Your task to perform on an android device: toggle show notifications on the lock screen Image 0: 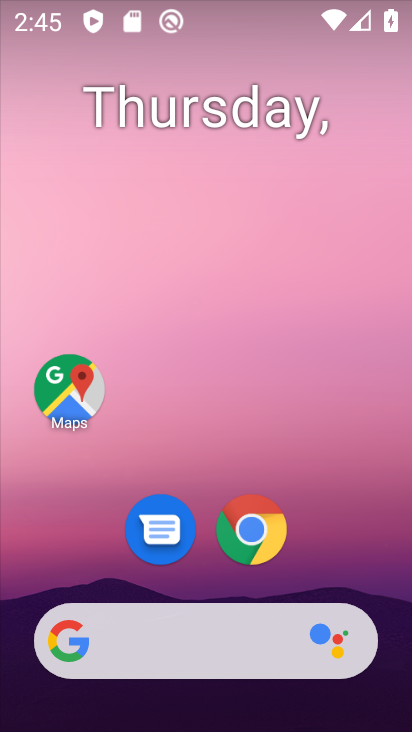
Step 0: drag from (217, 569) to (289, 210)
Your task to perform on an android device: toggle show notifications on the lock screen Image 1: 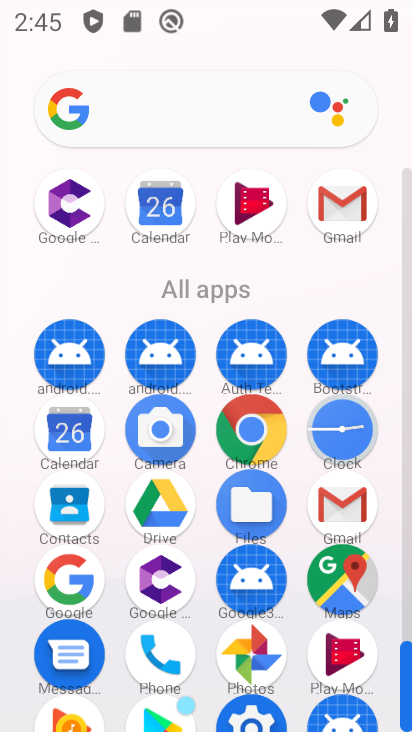
Step 1: click (253, 716)
Your task to perform on an android device: toggle show notifications on the lock screen Image 2: 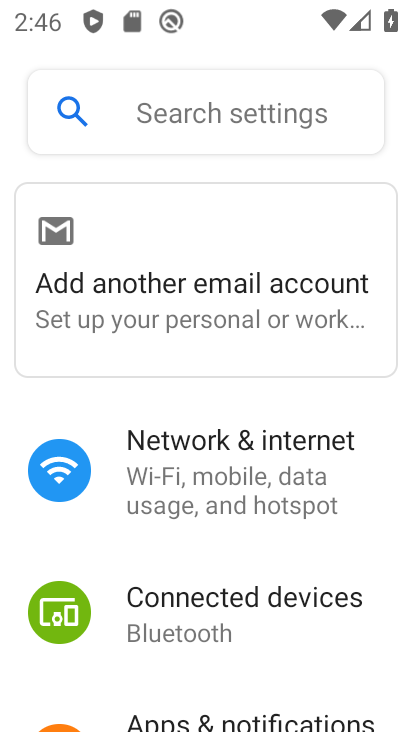
Step 2: drag from (237, 657) to (266, 374)
Your task to perform on an android device: toggle show notifications on the lock screen Image 3: 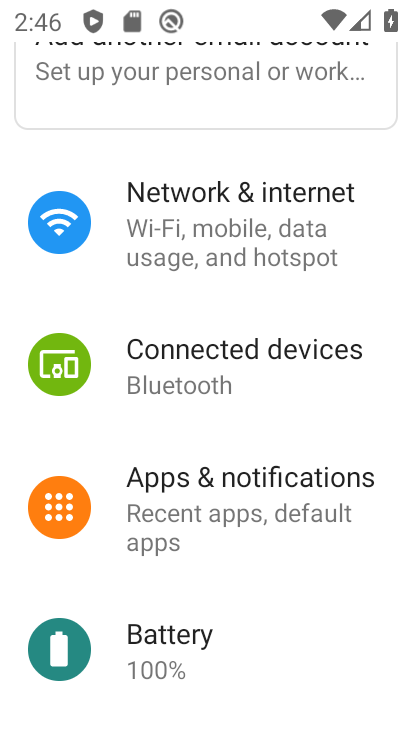
Step 3: click (242, 487)
Your task to perform on an android device: toggle show notifications on the lock screen Image 4: 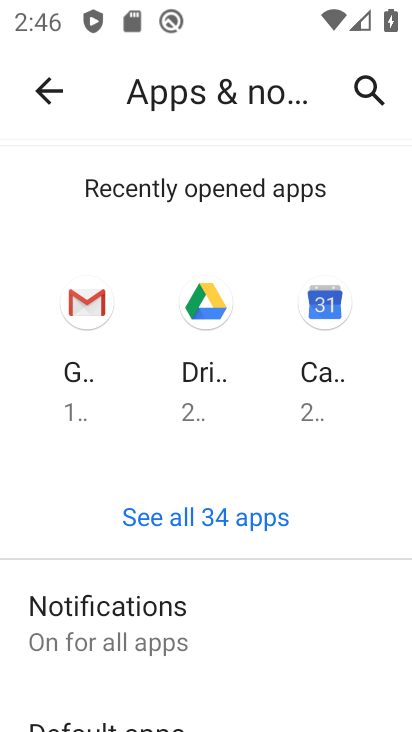
Step 4: drag from (208, 628) to (293, 351)
Your task to perform on an android device: toggle show notifications on the lock screen Image 5: 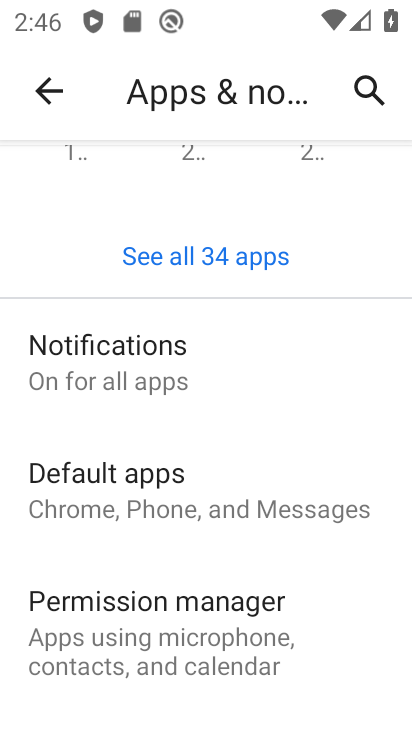
Step 5: click (127, 380)
Your task to perform on an android device: toggle show notifications on the lock screen Image 6: 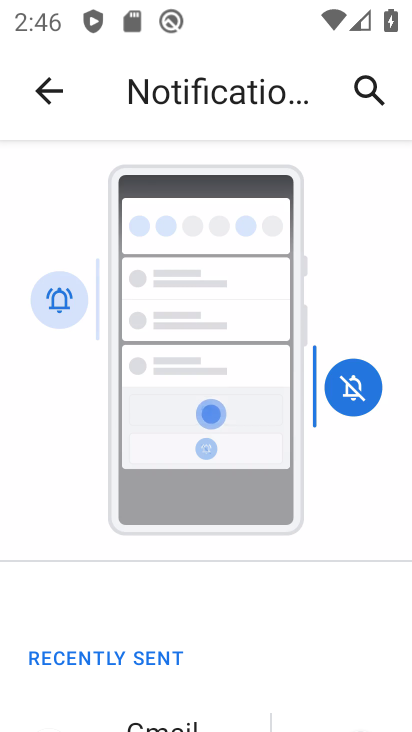
Step 6: drag from (227, 645) to (306, 314)
Your task to perform on an android device: toggle show notifications on the lock screen Image 7: 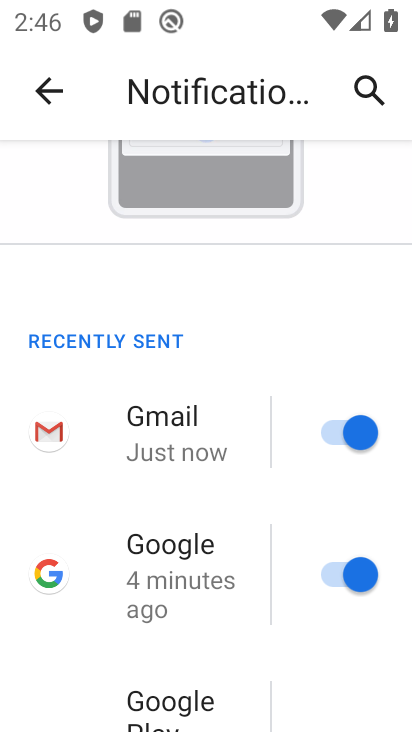
Step 7: drag from (208, 615) to (278, 365)
Your task to perform on an android device: toggle show notifications on the lock screen Image 8: 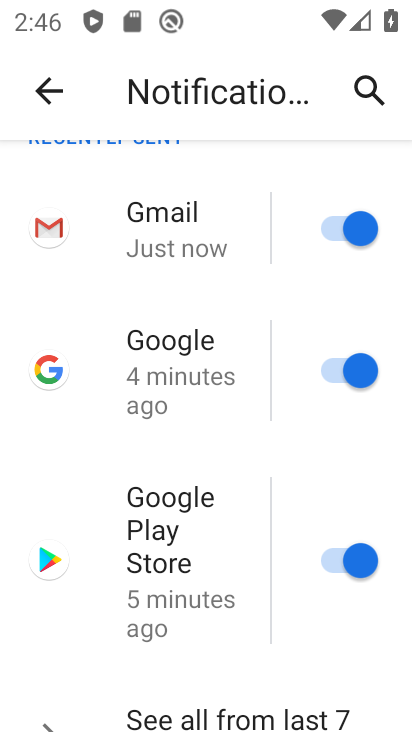
Step 8: drag from (198, 670) to (280, 402)
Your task to perform on an android device: toggle show notifications on the lock screen Image 9: 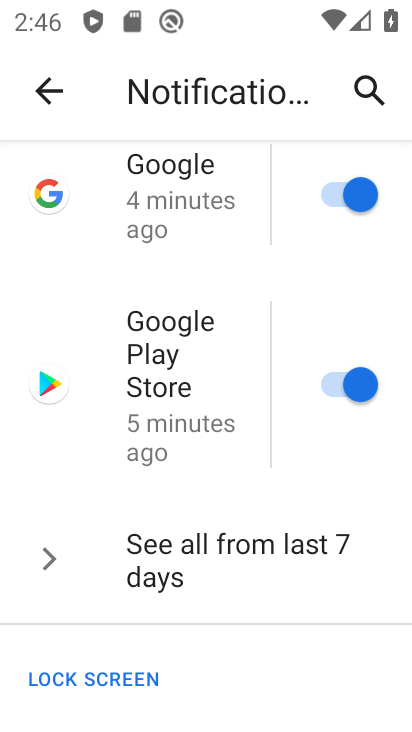
Step 9: drag from (185, 713) to (231, 464)
Your task to perform on an android device: toggle show notifications on the lock screen Image 10: 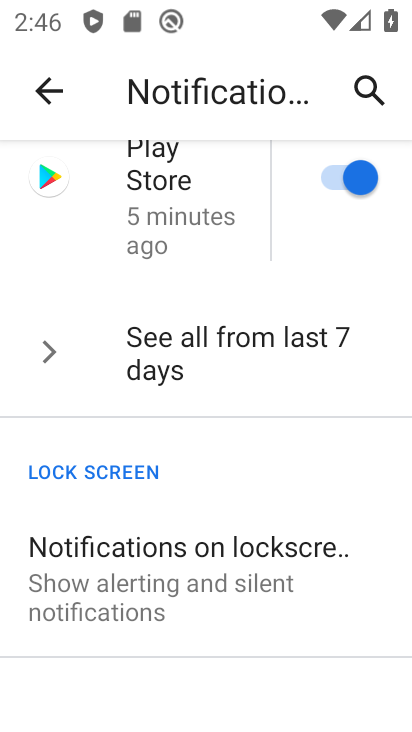
Step 10: click (194, 582)
Your task to perform on an android device: toggle show notifications on the lock screen Image 11: 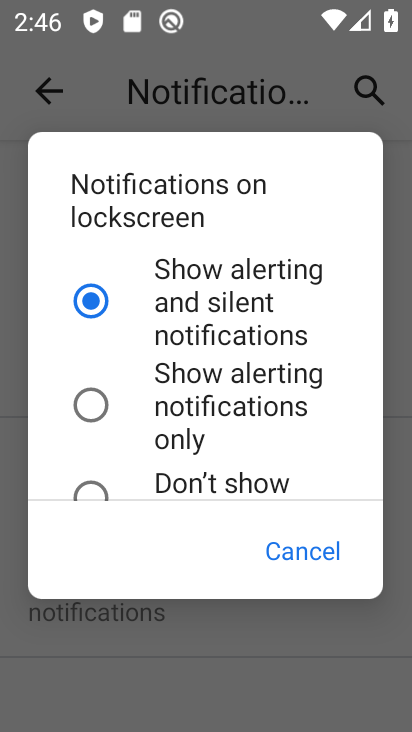
Step 11: task complete